Your task to perform on an android device: change text size in settings app Image 0: 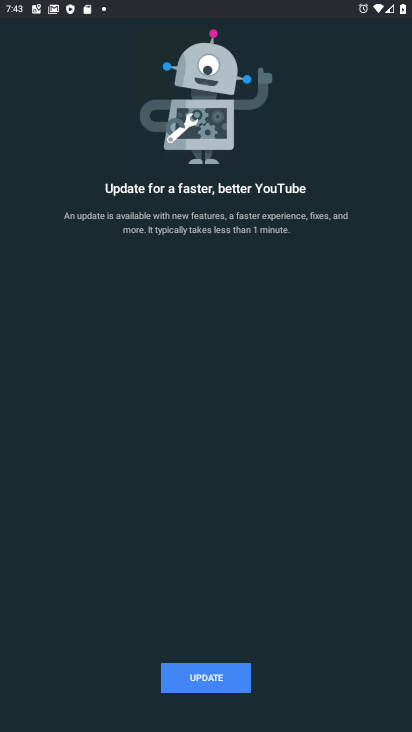
Step 0: press back button
Your task to perform on an android device: change text size in settings app Image 1: 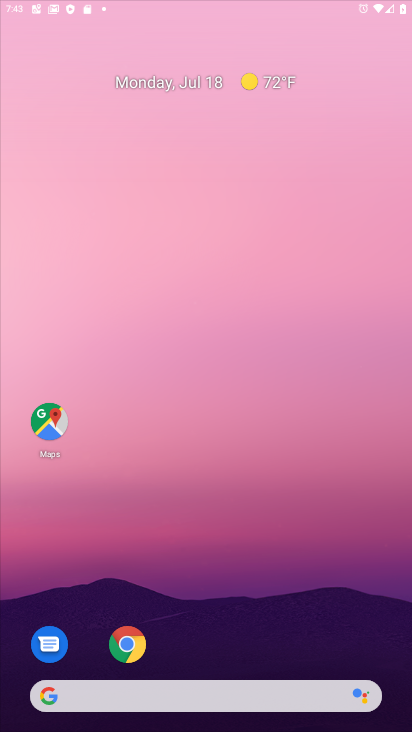
Step 1: drag from (374, 672) to (192, 5)
Your task to perform on an android device: change text size in settings app Image 2: 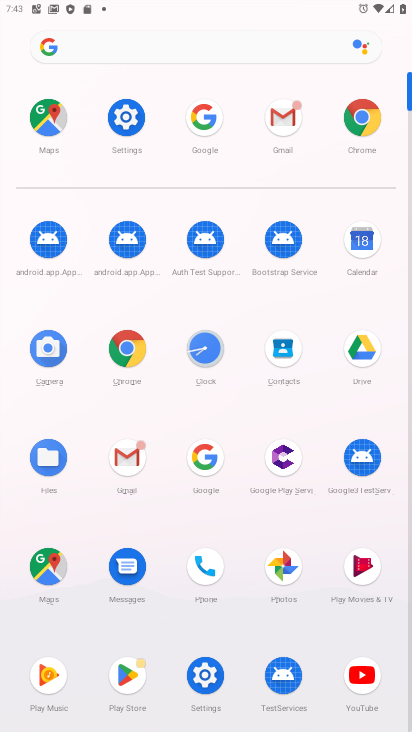
Step 2: click (210, 679)
Your task to perform on an android device: change text size in settings app Image 3: 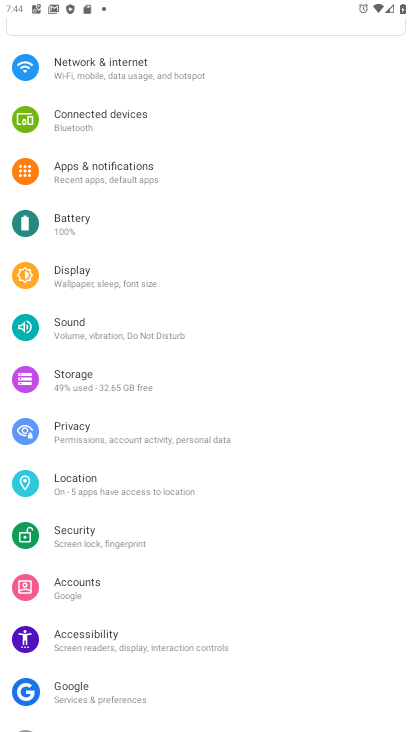
Step 3: click (101, 271)
Your task to perform on an android device: change text size in settings app Image 4: 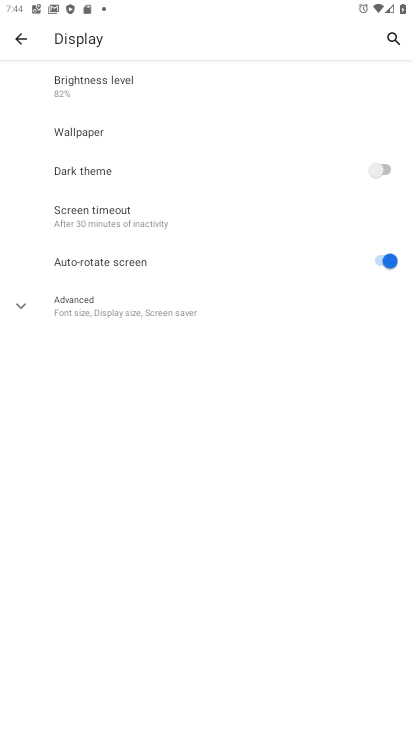
Step 4: click (59, 297)
Your task to perform on an android device: change text size in settings app Image 5: 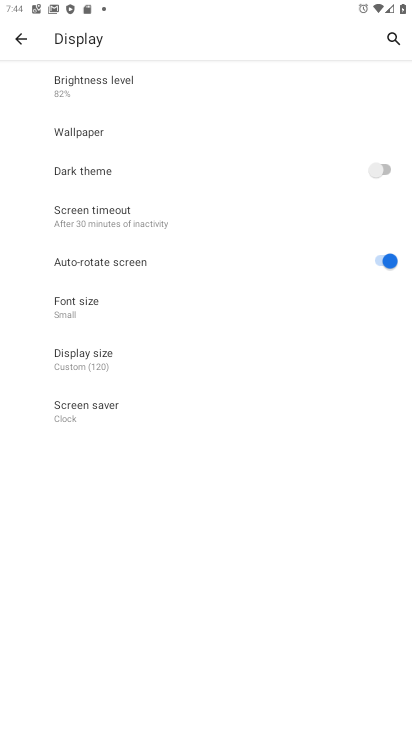
Step 5: click (84, 315)
Your task to perform on an android device: change text size in settings app Image 6: 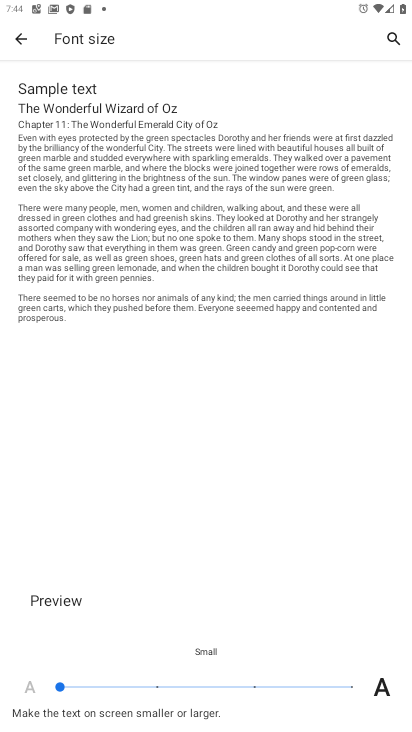
Step 6: click (348, 690)
Your task to perform on an android device: change text size in settings app Image 7: 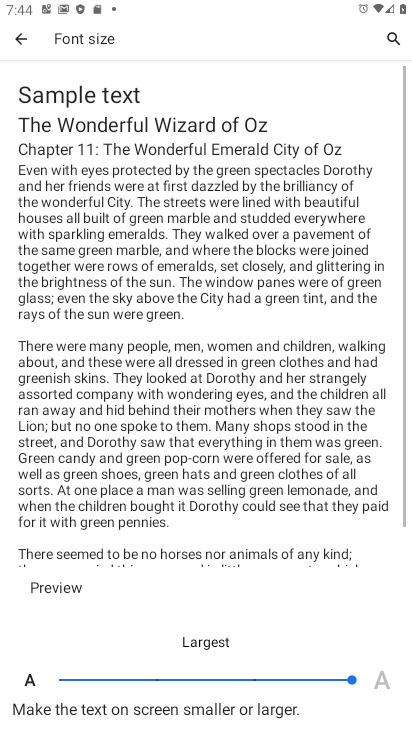
Step 7: task complete